Your task to perform on an android device: Open calendar and show me the first week of next month Image 0: 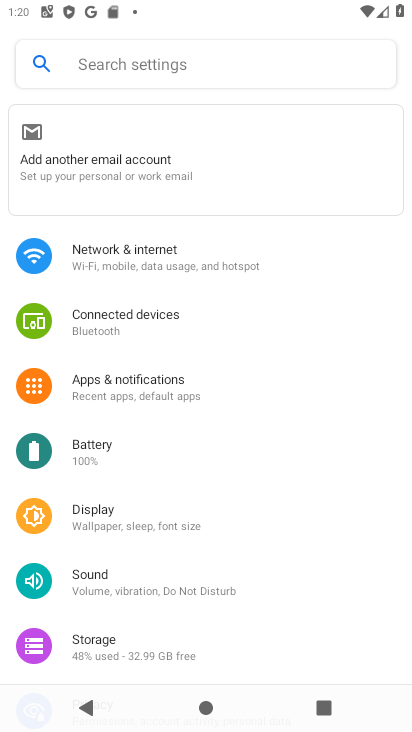
Step 0: press home button
Your task to perform on an android device: Open calendar and show me the first week of next month Image 1: 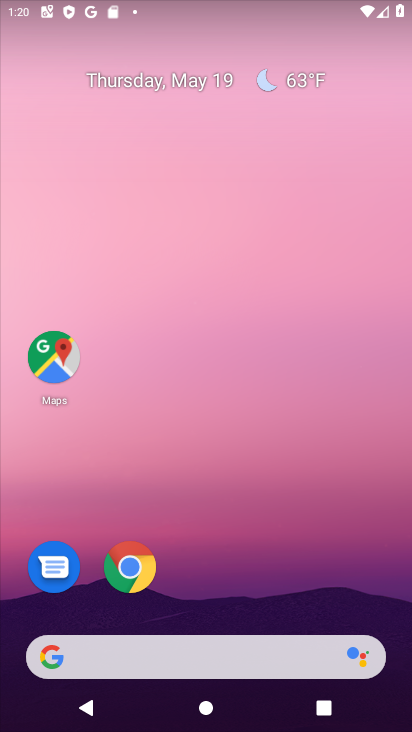
Step 1: drag from (258, 575) to (230, 194)
Your task to perform on an android device: Open calendar and show me the first week of next month Image 2: 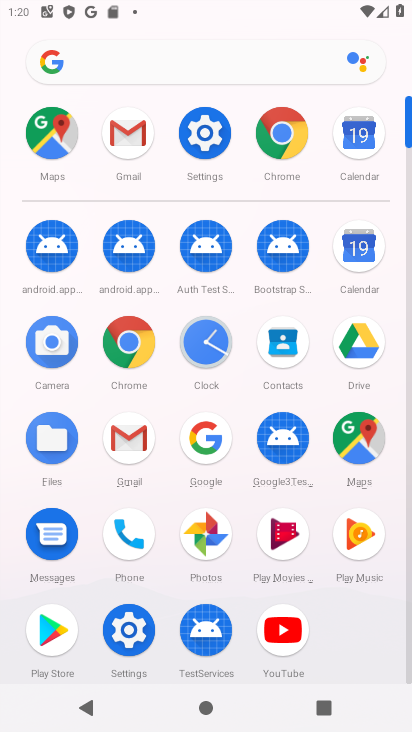
Step 2: click (369, 263)
Your task to perform on an android device: Open calendar and show me the first week of next month Image 3: 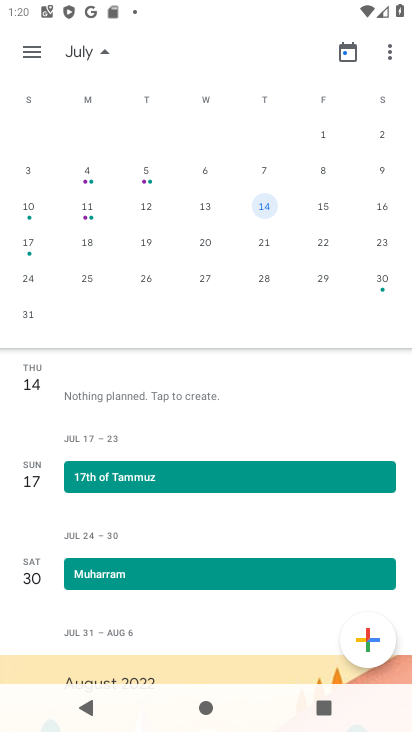
Step 3: drag from (368, 271) to (63, 395)
Your task to perform on an android device: Open calendar and show me the first week of next month Image 4: 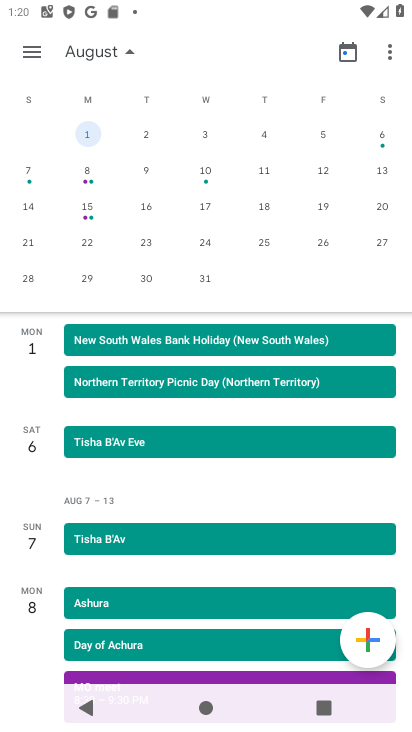
Step 4: click (384, 138)
Your task to perform on an android device: Open calendar and show me the first week of next month Image 5: 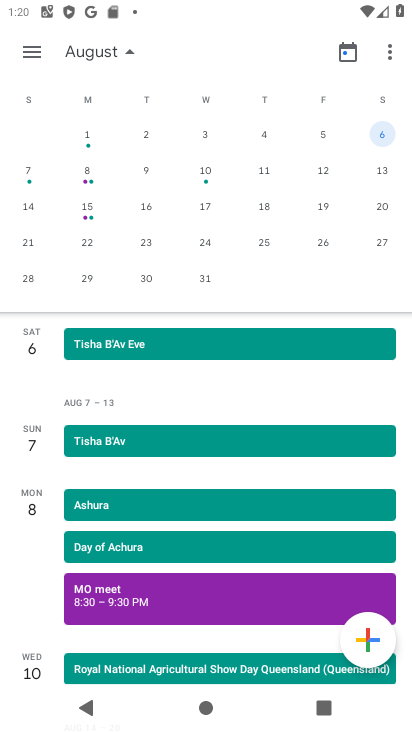
Step 5: task complete